Your task to perform on an android device: Go to settings Image 0: 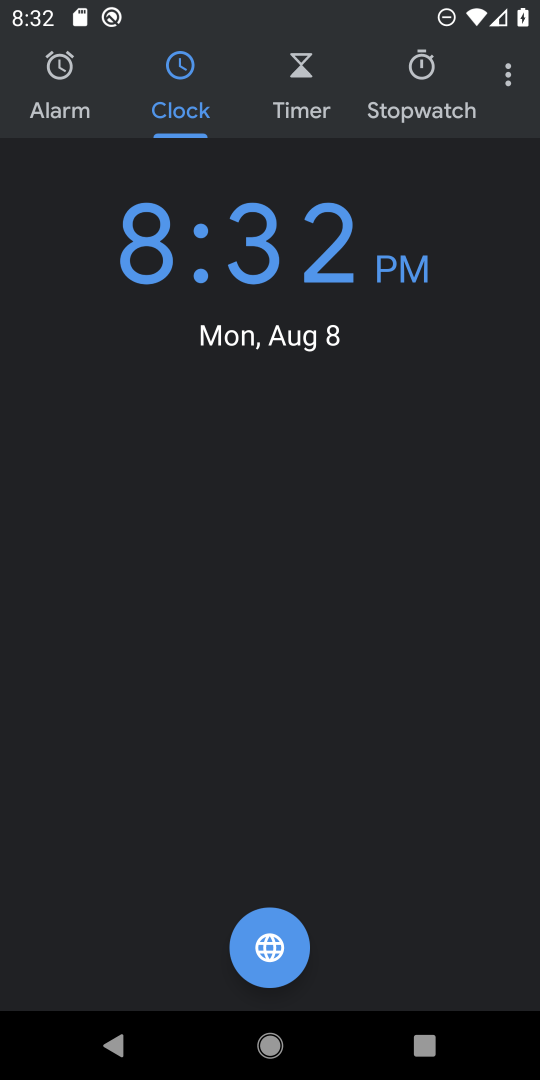
Step 0: press home button
Your task to perform on an android device: Go to settings Image 1: 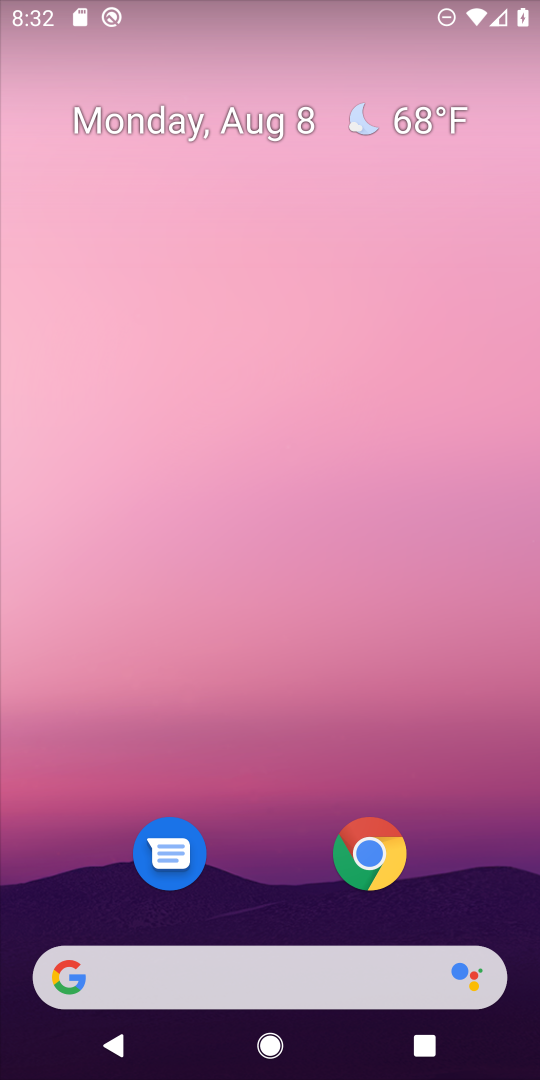
Step 1: drag from (294, 800) to (183, 53)
Your task to perform on an android device: Go to settings Image 2: 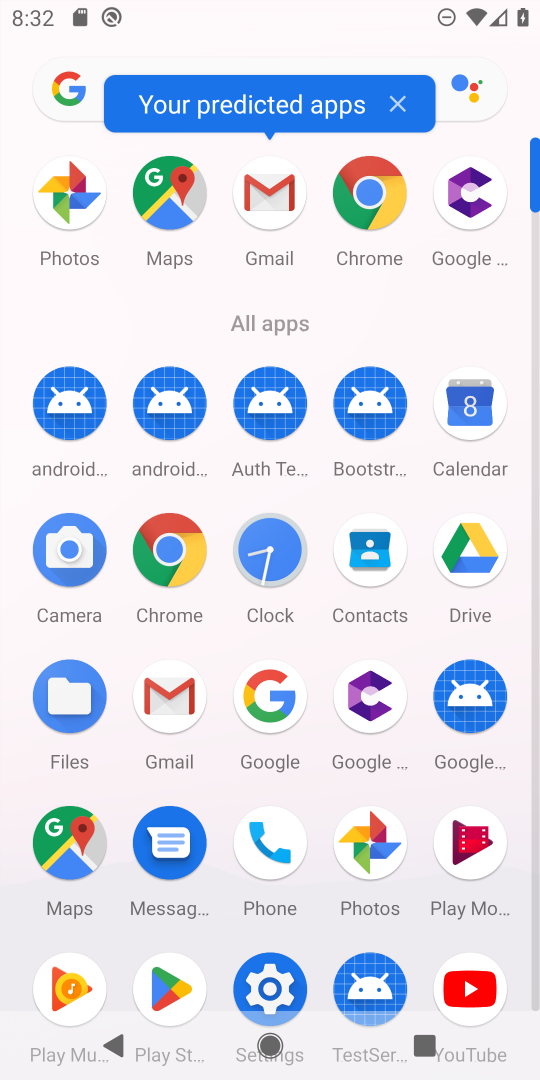
Step 2: click (274, 965)
Your task to perform on an android device: Go to settings Image 3: 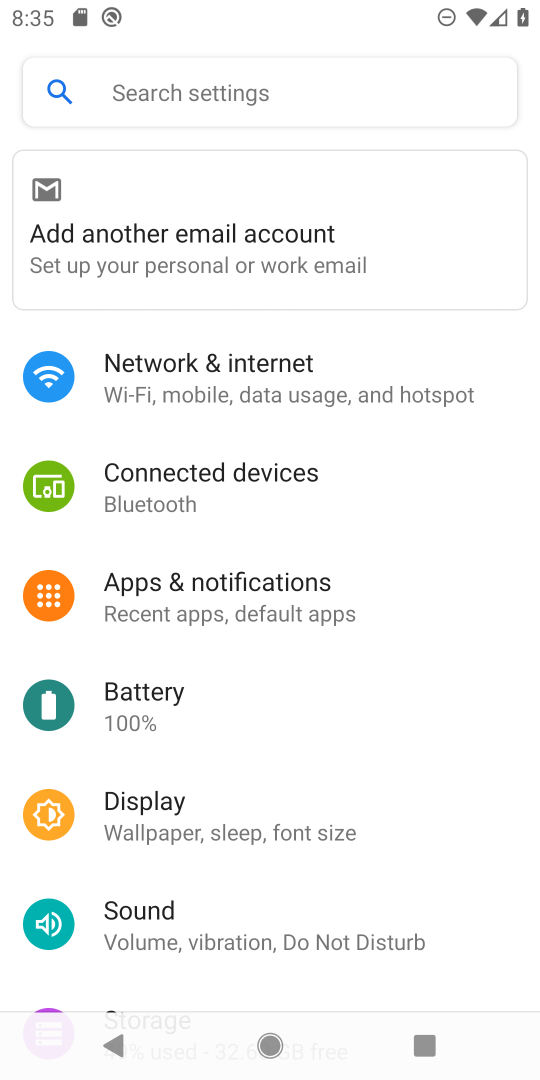
Step 3: task complete